Your task to perform on an android device: Show me the best rated coffee table on Ikea Image 0: 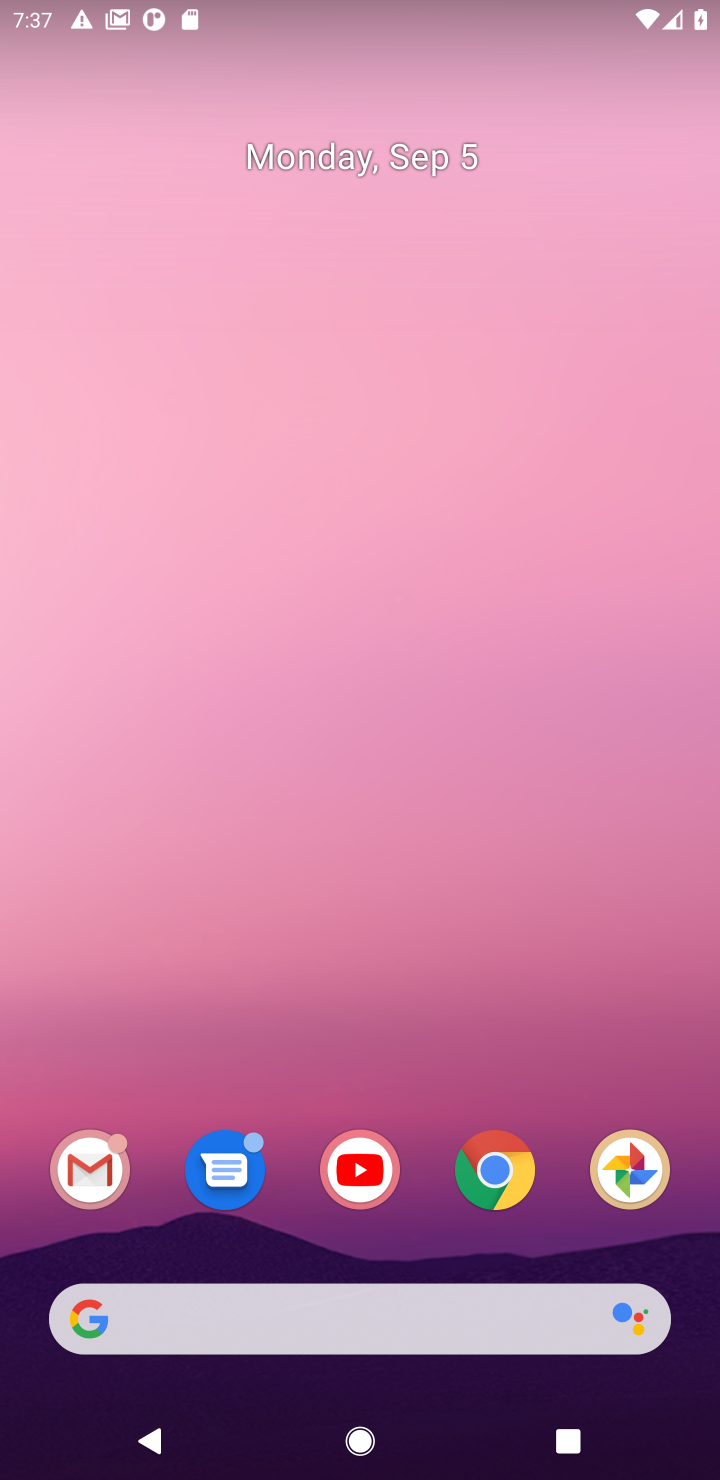
Step 0: drag from (279, 739) to (318, 657)
Your task to perform on an android device: Show me the best rated coffee table on Ikea Image 1: 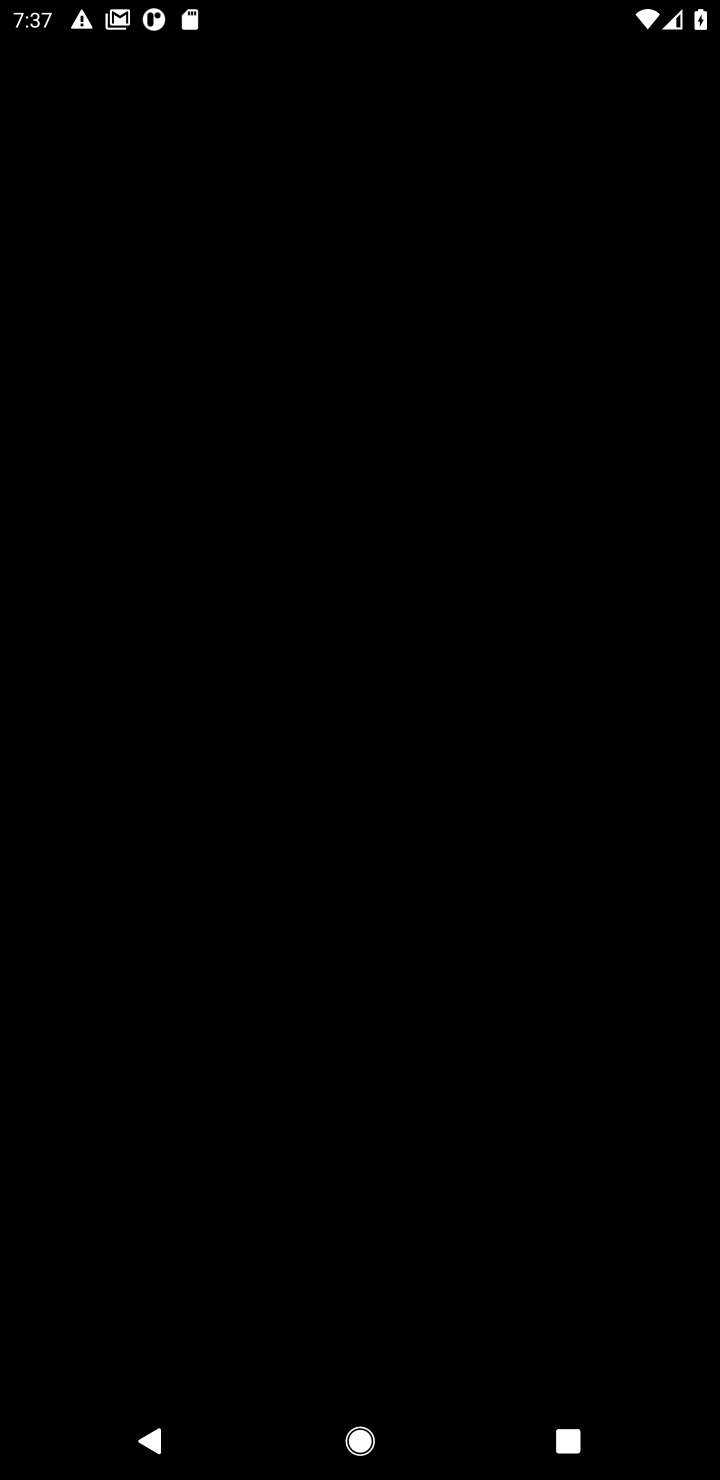
Step 1: press home button
Your task to perform on an android device: Show me the best rated coffee table on Ikea Image 2: 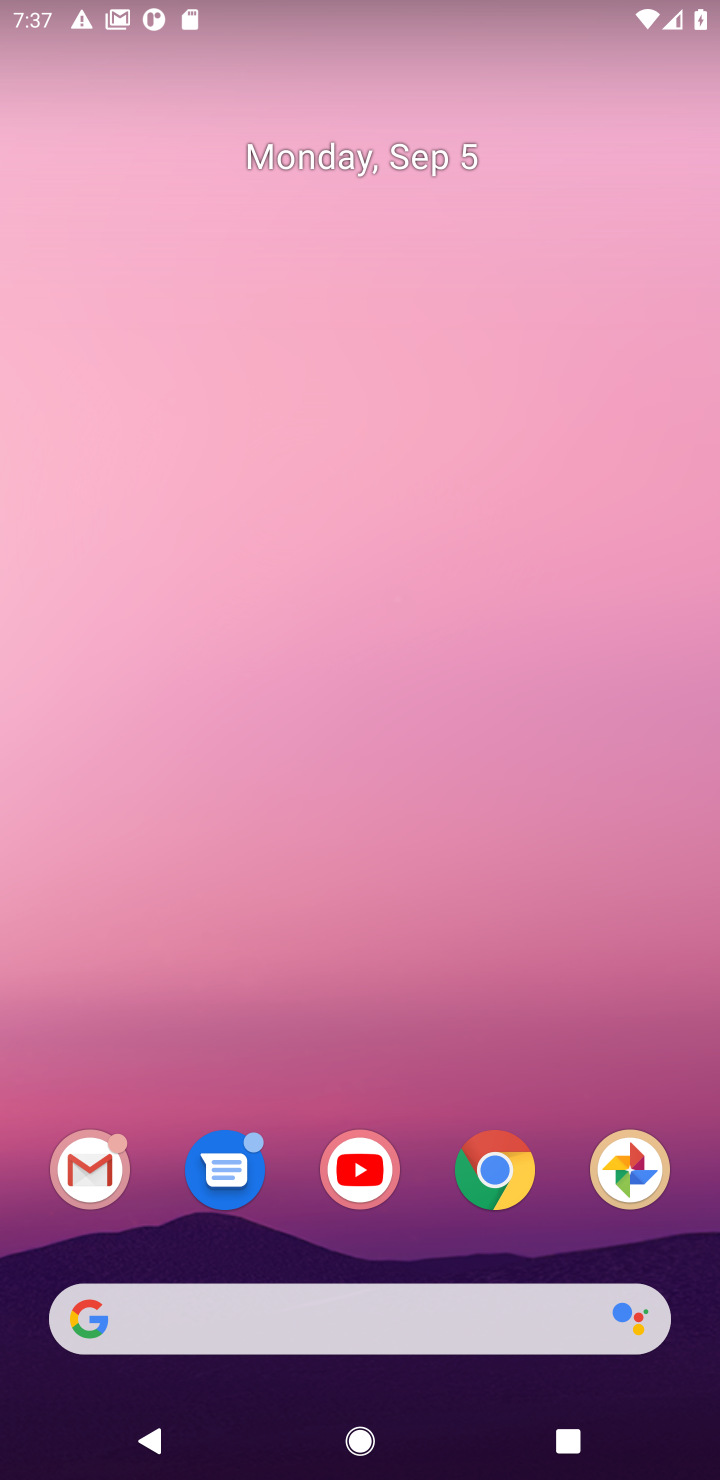
Step 2: click (505, 1184)
Your task to perform on an android device: Show me the best rated coffee table on Ikea Image 3: 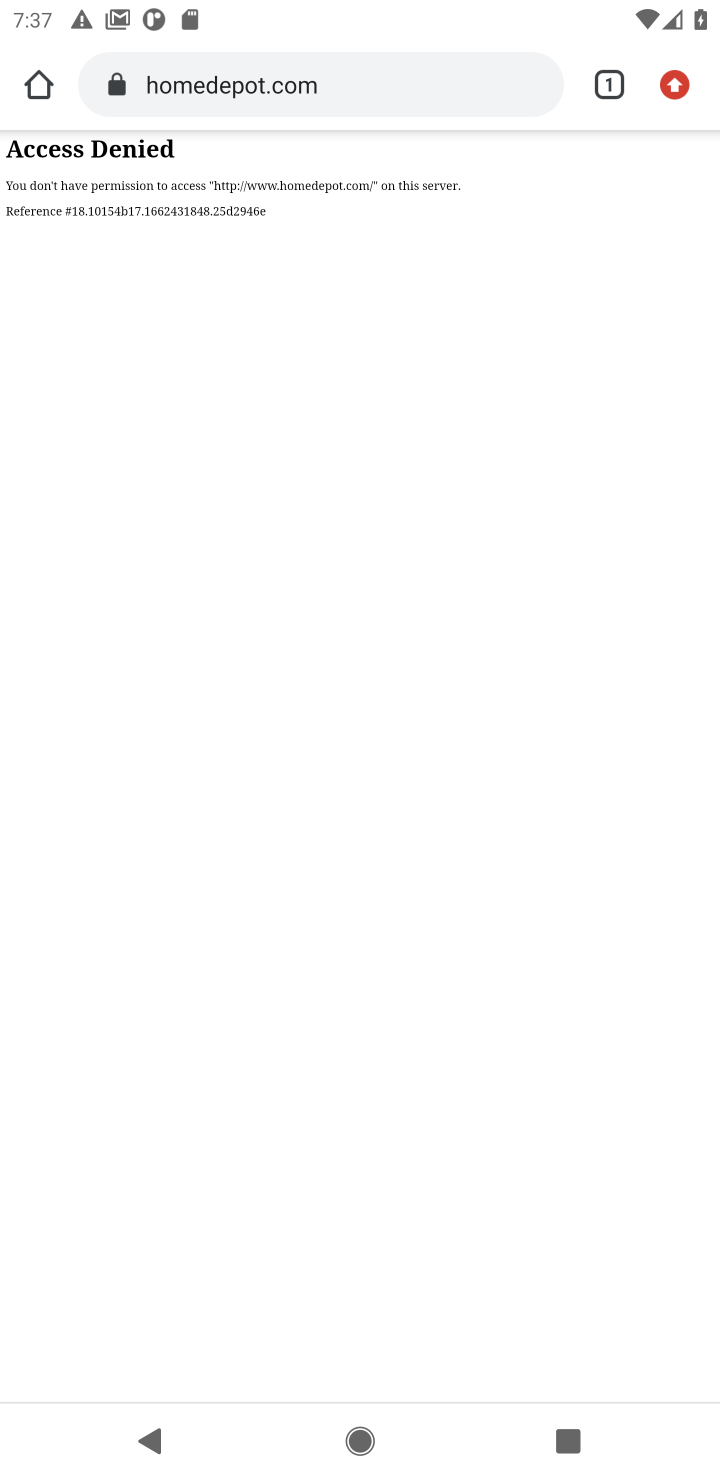
Step 3: click (222, 82)
Your task to perform on an android device: Show me the best rated coffee table on Ikea Image 4: 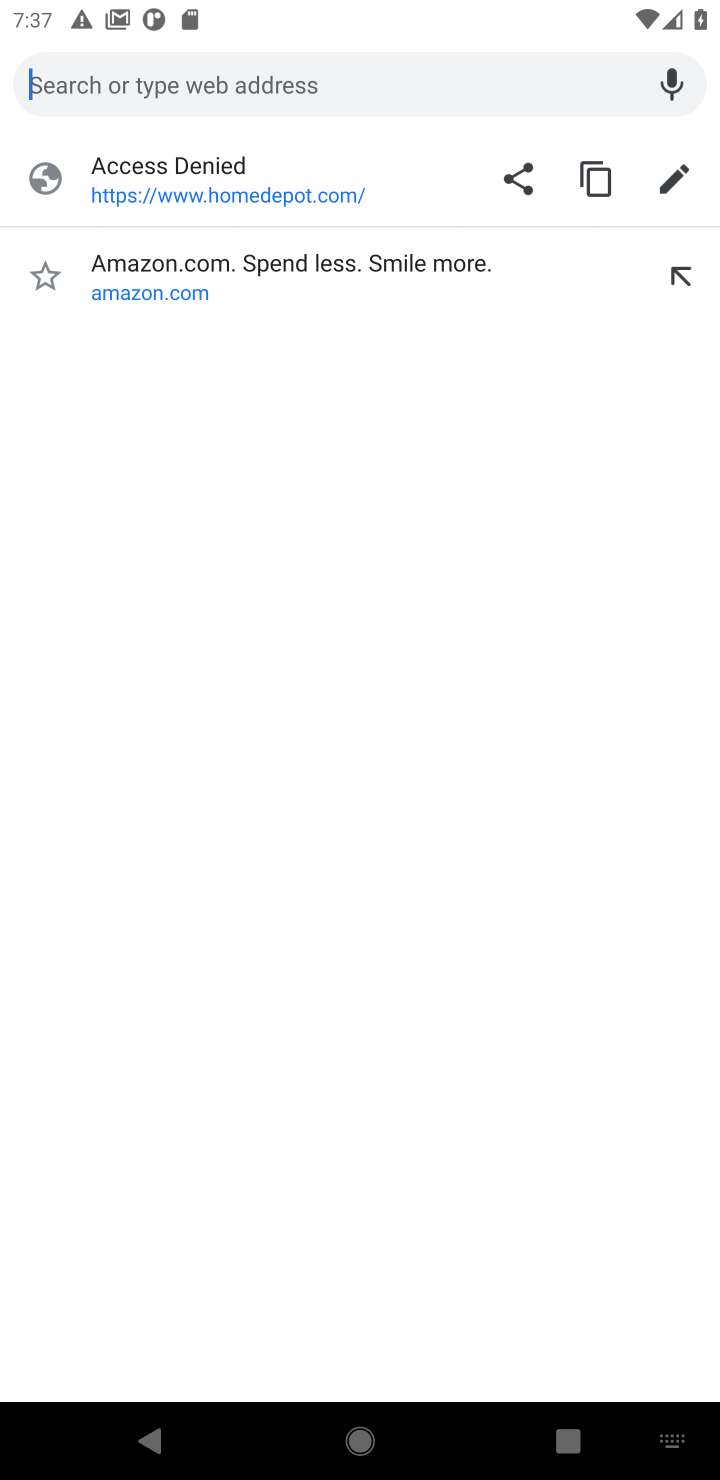
Step 4: type "Ikea"
Your task to perform on an android device: Show me the best rated coffee table on Ikea Image 5: 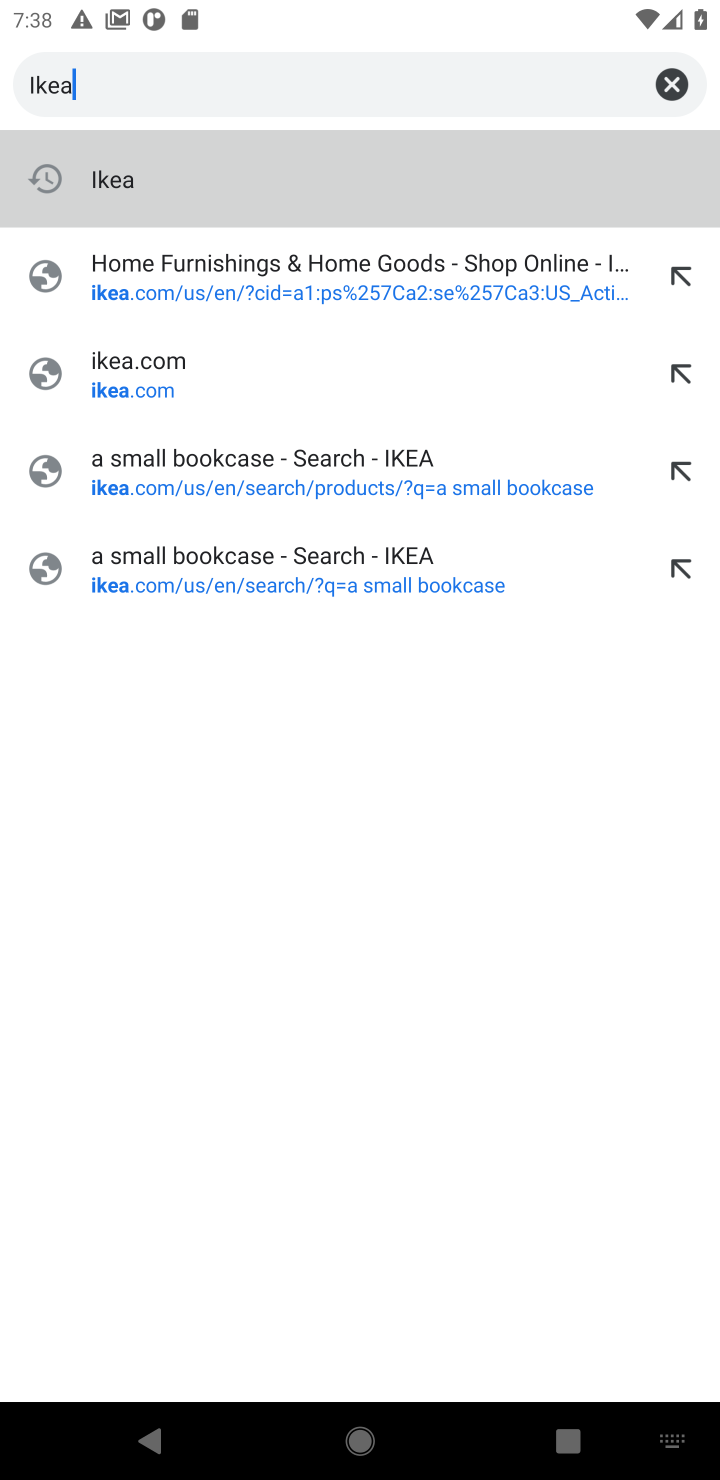
Step 5: click (271, 191)
Your task to perform on an android device: Show me the best rated coffee table on Ikea Image 6: 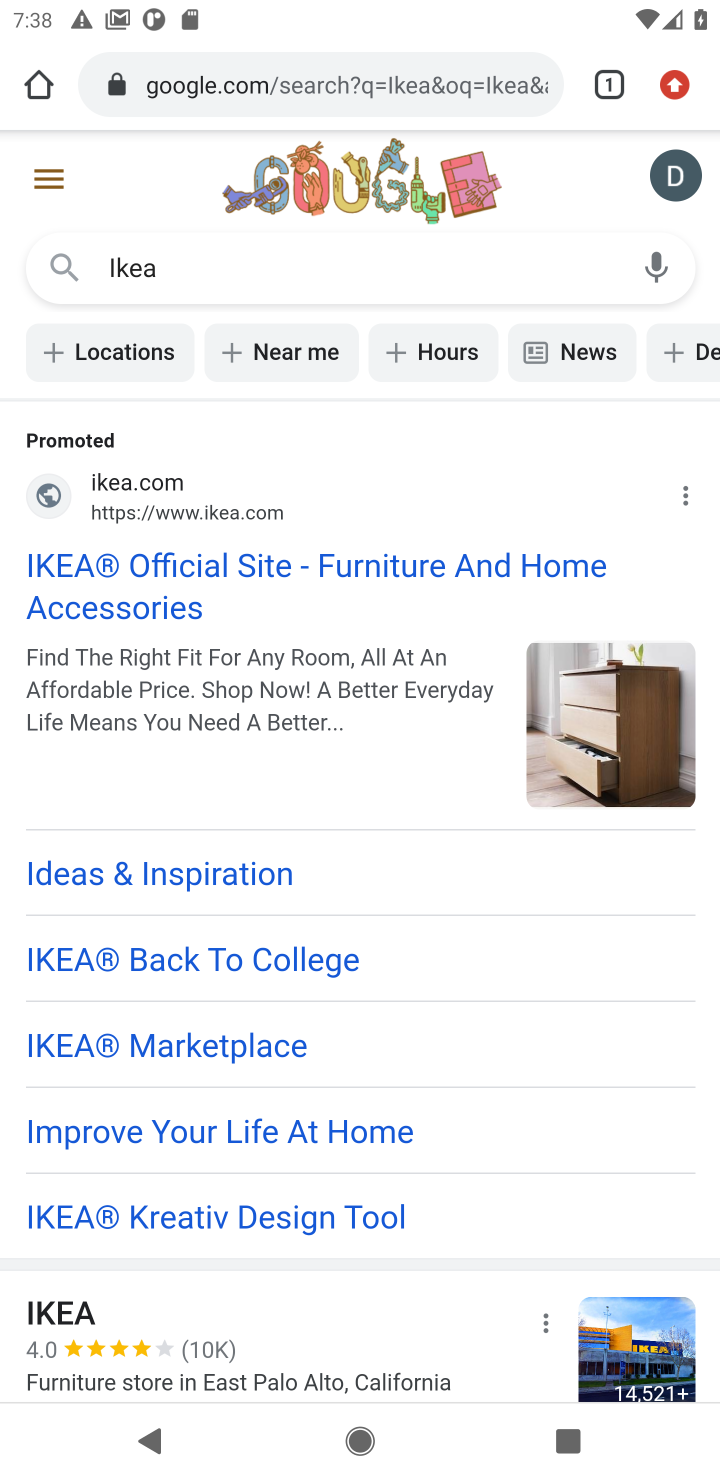
Step 6: click (194, 604)
Your task to perform on an android device: Show me the best rated coffee table on Ikea Image 7: 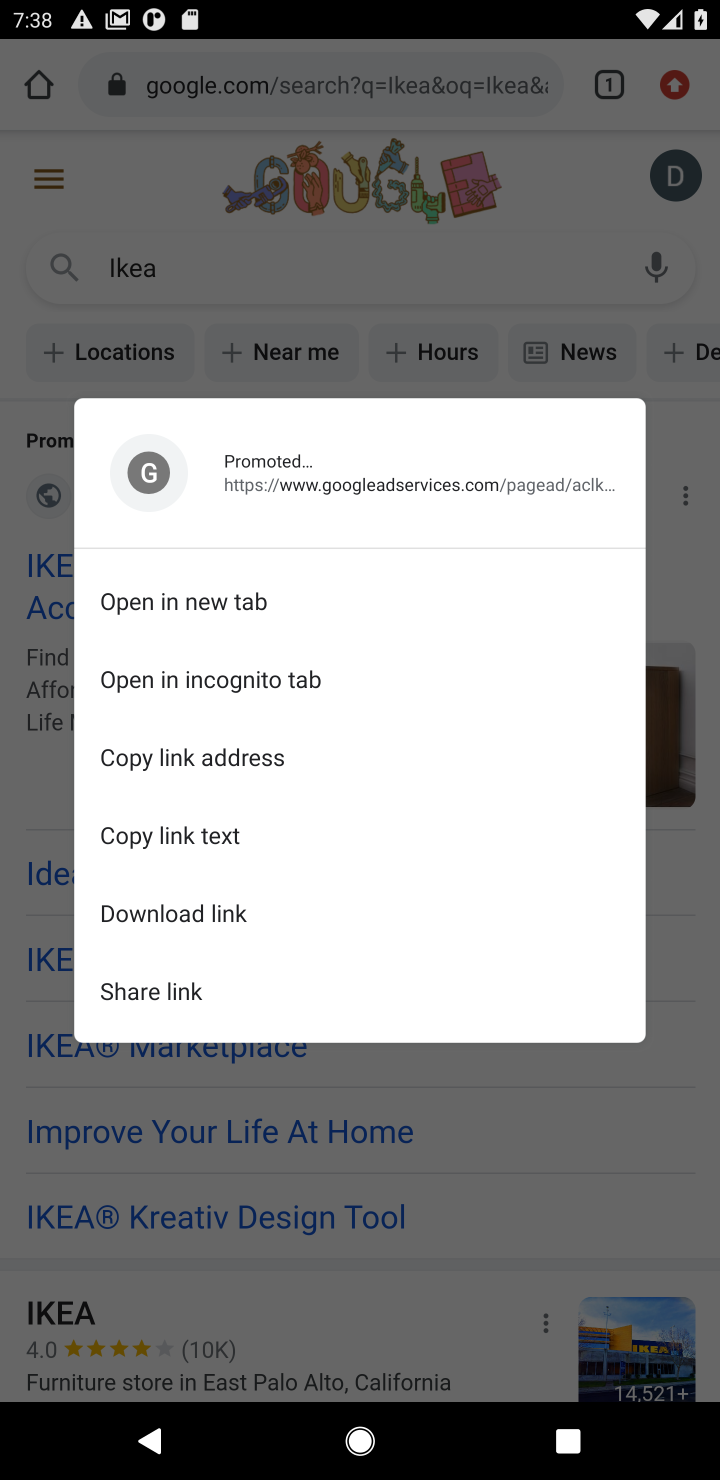
Step 7: click (17, 592)
Your task to perform on an android device: Show me the best rated coffee table on Ikea Image 8: 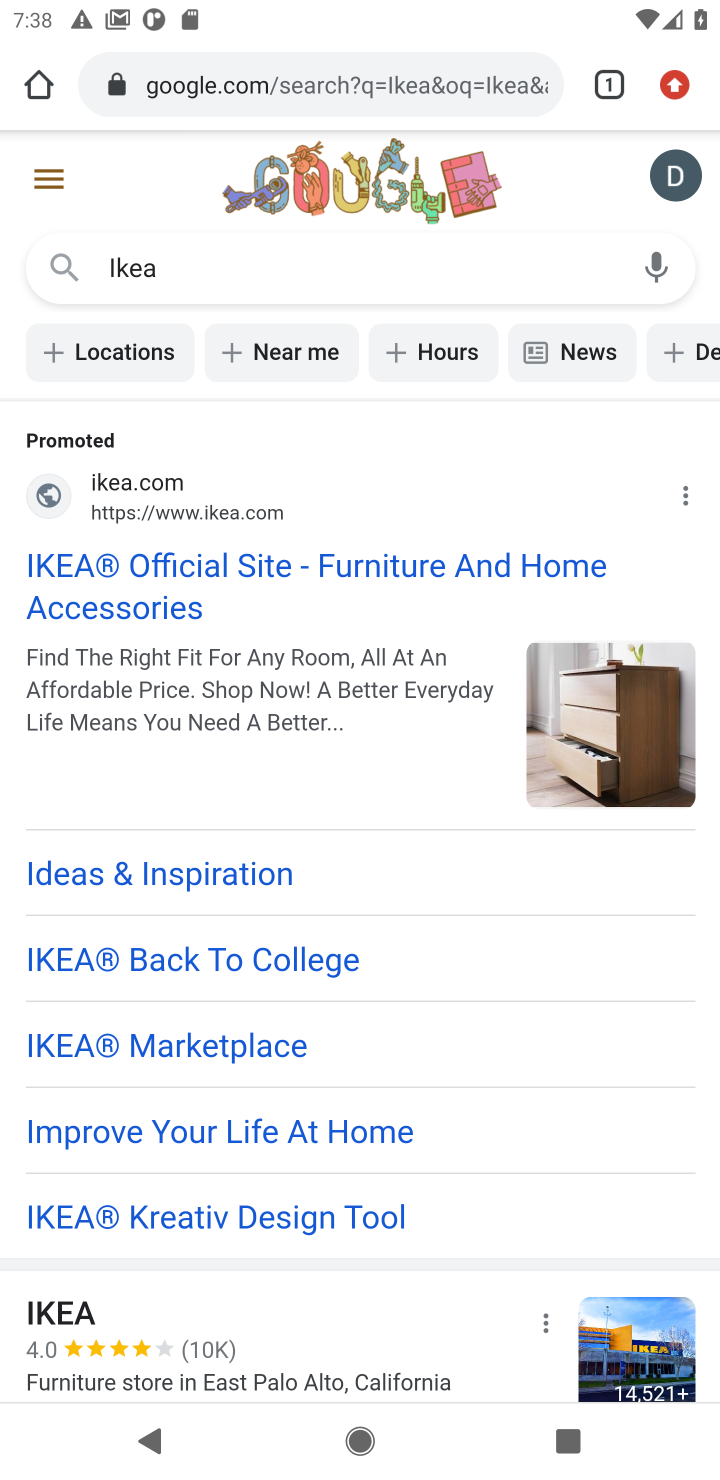
Step 8: click (196, 603)
Your task to perform on an android device: Show me the best rated coffee table on Ikea Image 9: 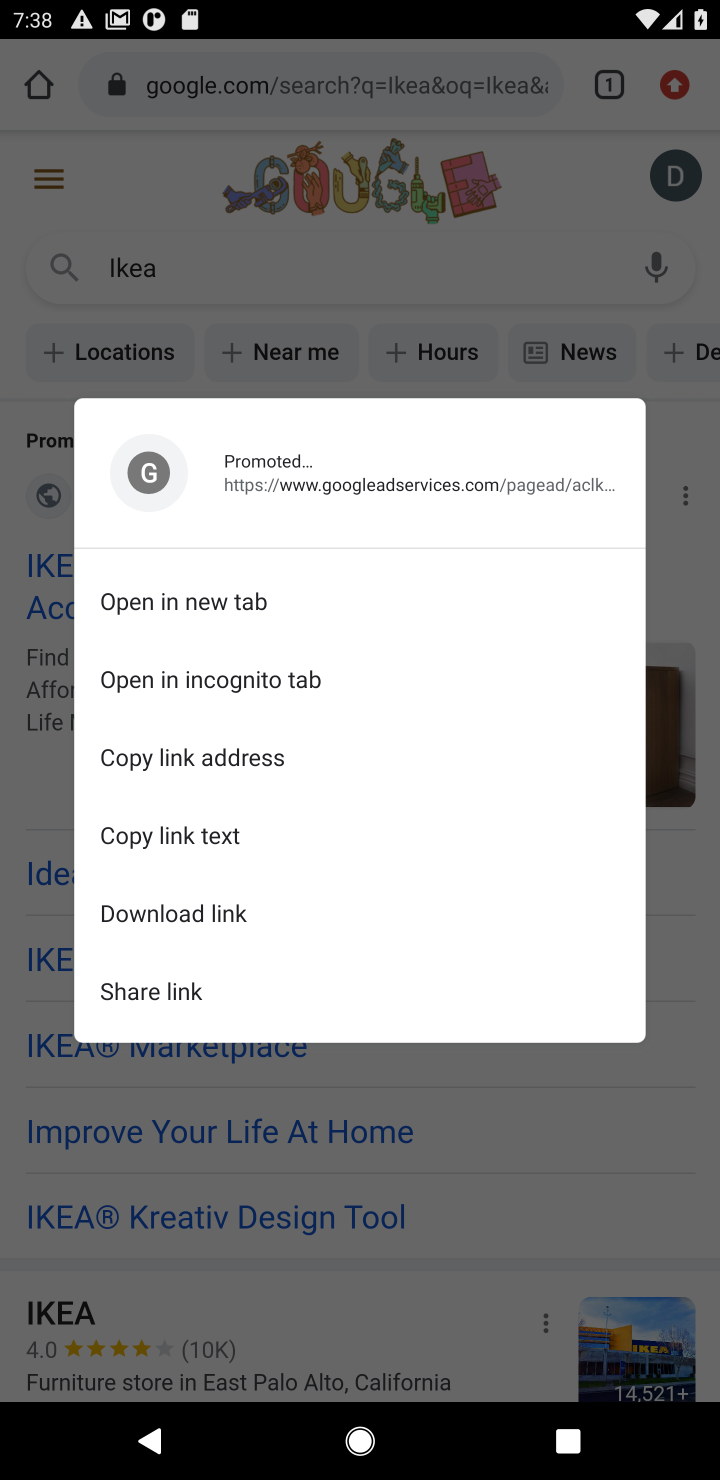
Step 9: click (4, 606)
Your task to perform on an android device: Show me the best rated coffee table on Ikea Image 10: 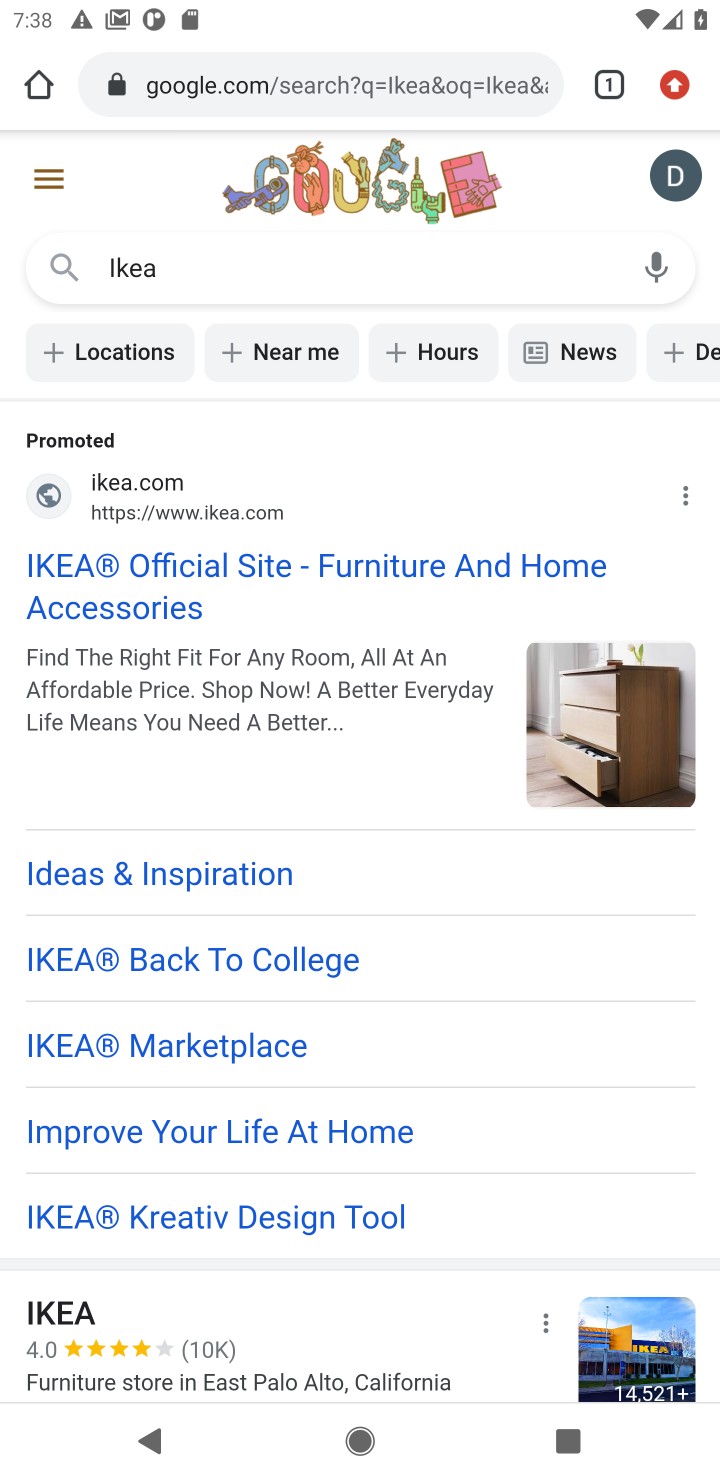
Step 10: click (333, 592)
Your task to perform on an android device: Show me the best rated coffee table on Ikea Image 11: 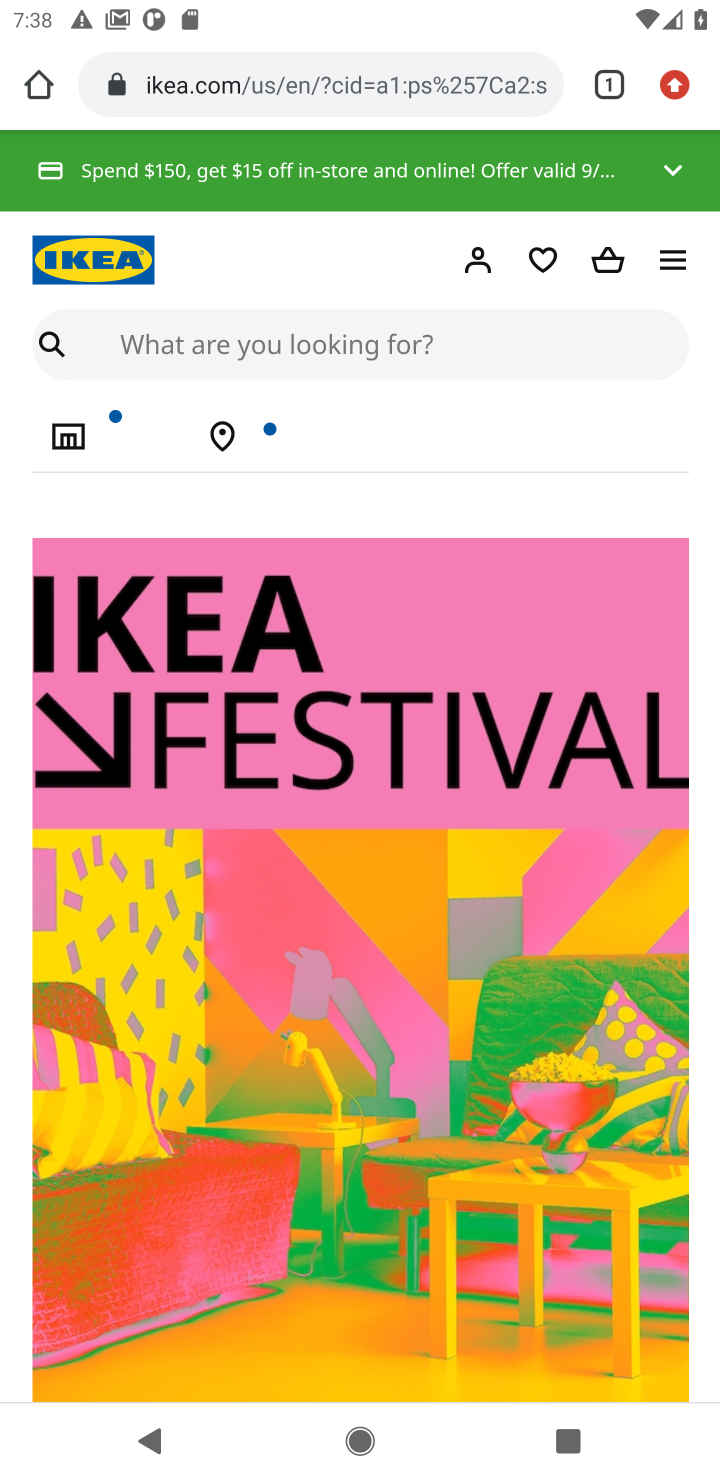
Step 11: click (353, 328)
Your task to perform on an android device: Show me the best rated coffee table on Ikea Image 12: 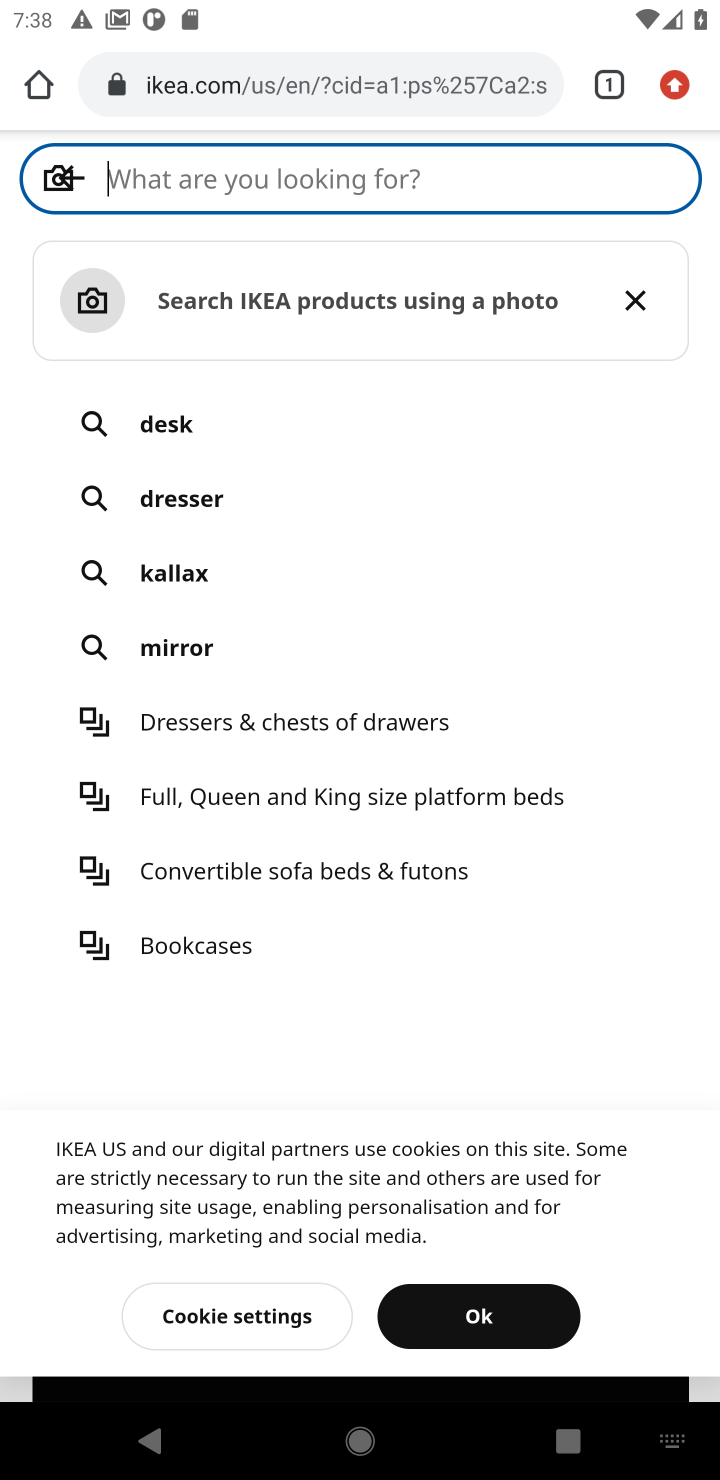
Step 12: type "the best rated coffee table"
Your task to perform on an android device: Show me the best rated coffee table on Ikea Image 13: 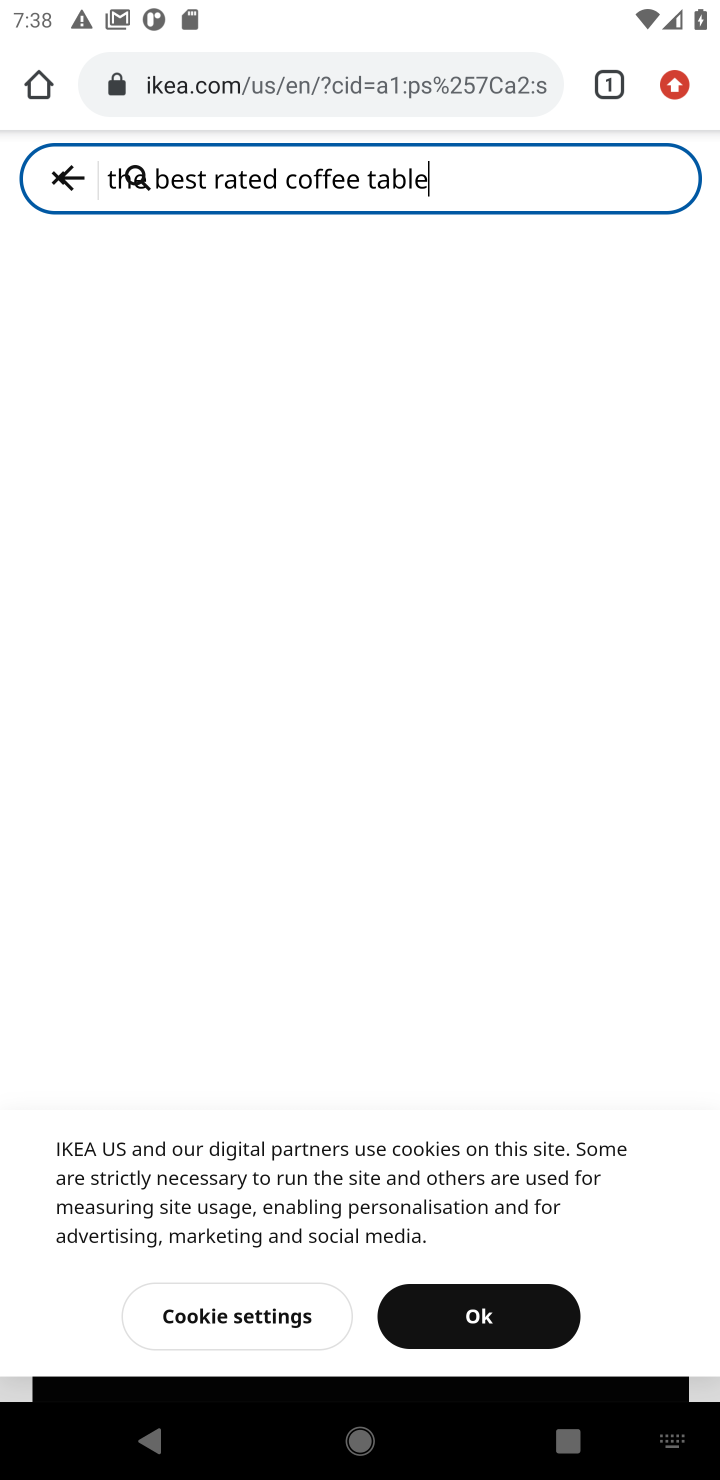
Step 13: click (143, 171)
Your task to perform on an android device: Show me the best rated coffee table on Ikea Image 14: 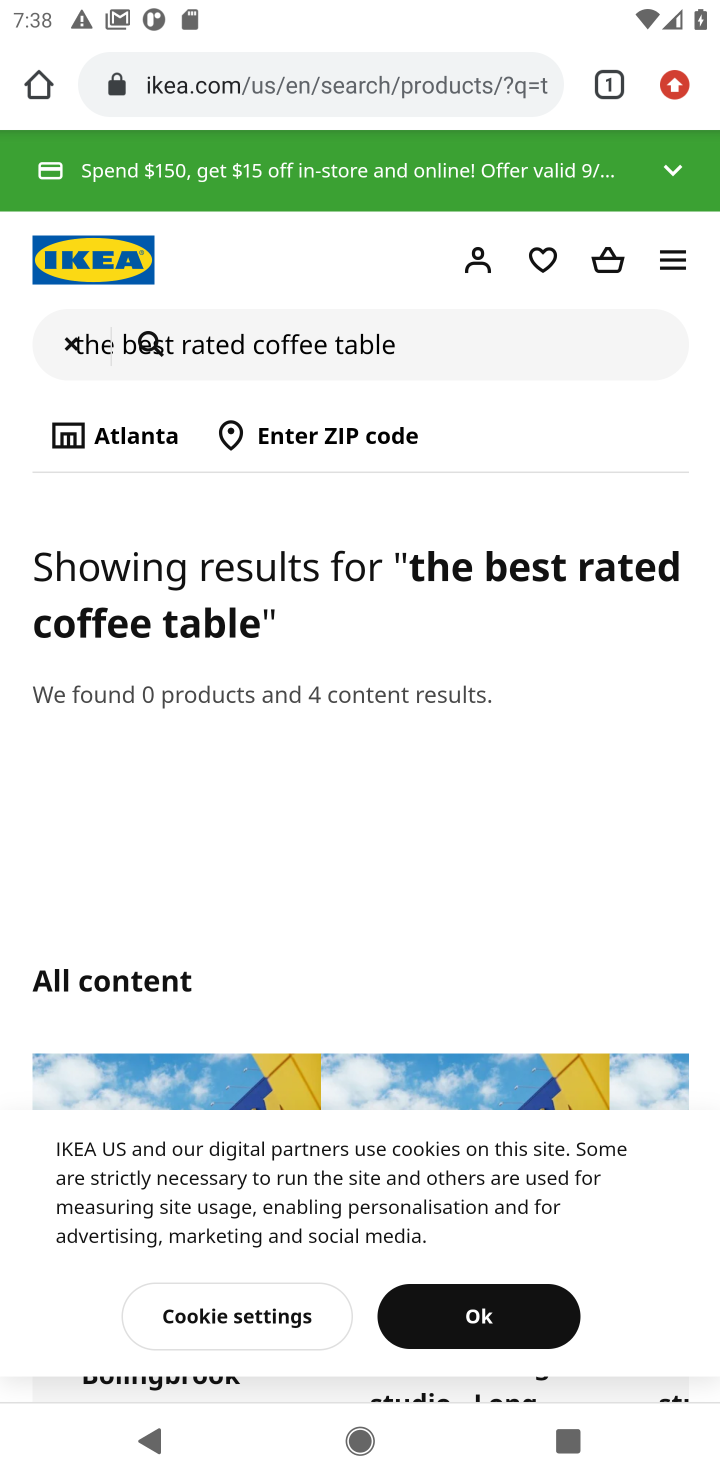
Step 14: task complete